Your task to perform on an android device: turn on location history Image 0: 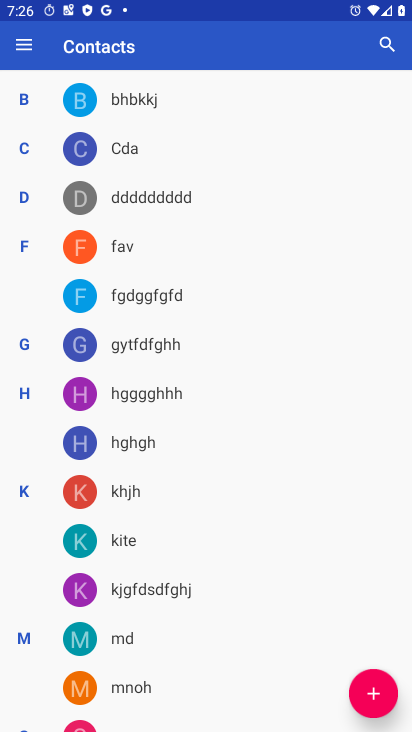
Step 0: press home button
Your task to perform on an android device: turn on location history Image 1: 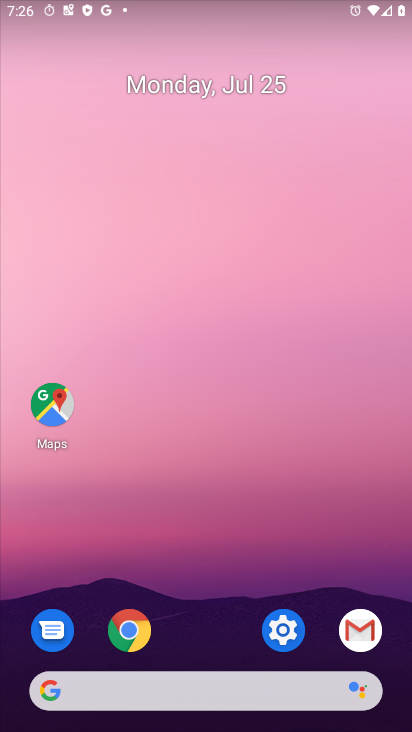
Step 1: drag from (247, 713) to (250, 235)
Your task to perform on an android device: turn on location history Image 2: 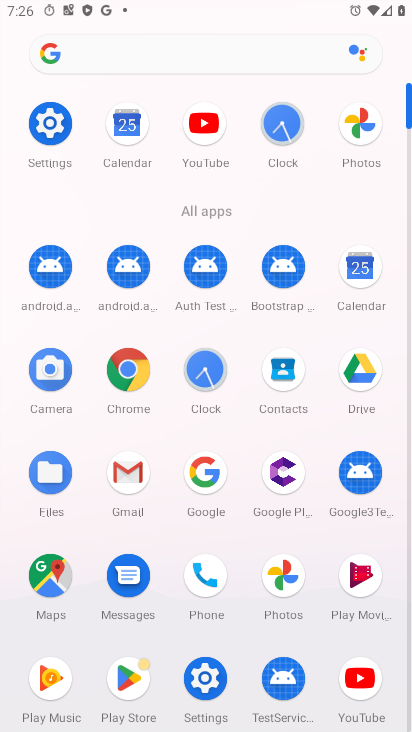
Step 2: click (61, 131)
Your task to perform on an android device: turn on location history Image 3: 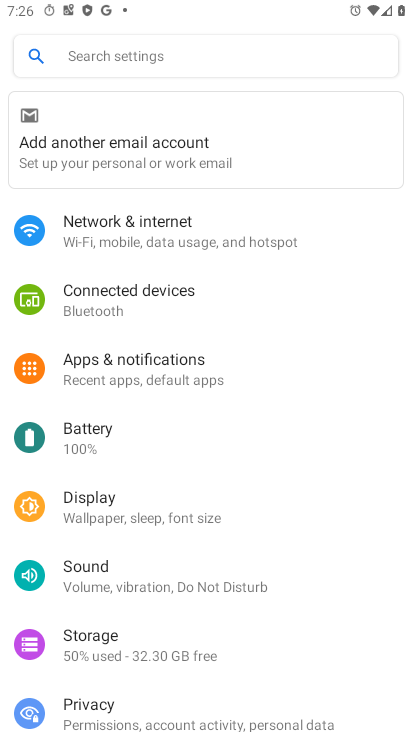
Step 3: drag from (117, 640) to (172, 519)
Your task to perform on an android device: turn on location history Image 4: 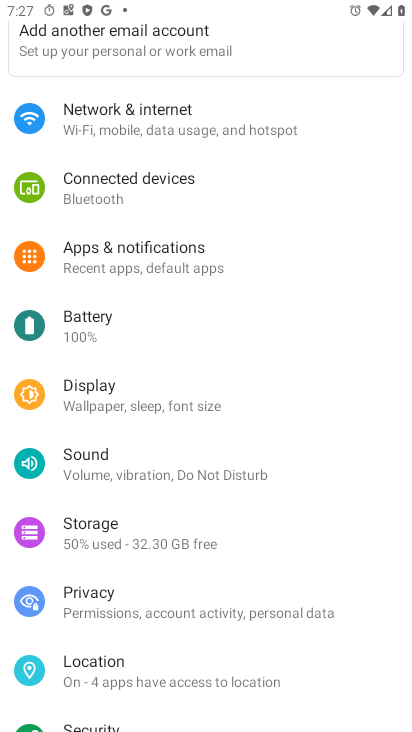
Step 4: click (121, 655)
Your task to perform on an android device: turn on location history Image 5: 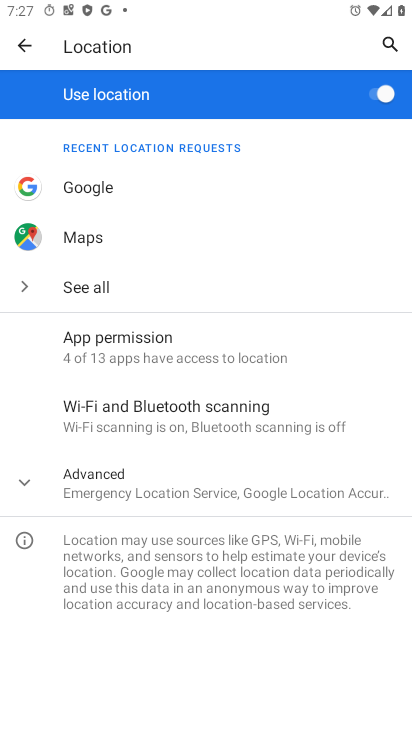
Step 5: click (63, 485)
Your task to perform on an android device: turn on location history Image 6: 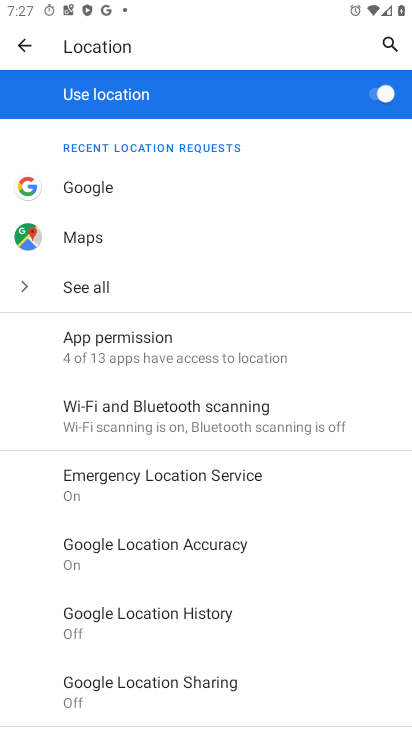
Step 6: click (132, 616)
Your task to perform on an android device: turn on location history Image 7: 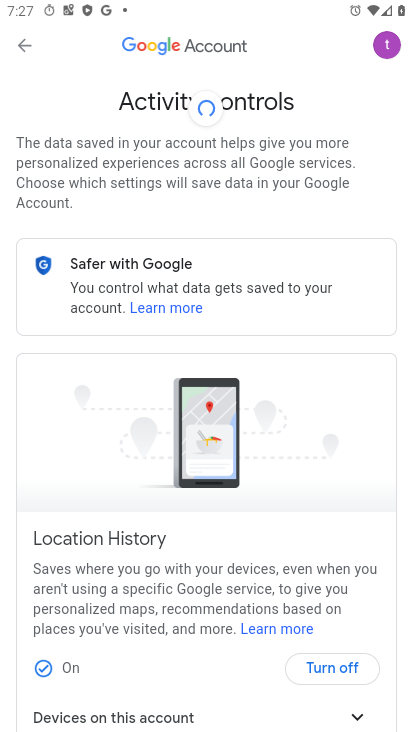
Step 7: click (66, 675)
Your task to perform on an android device: turn on location history Image 8: 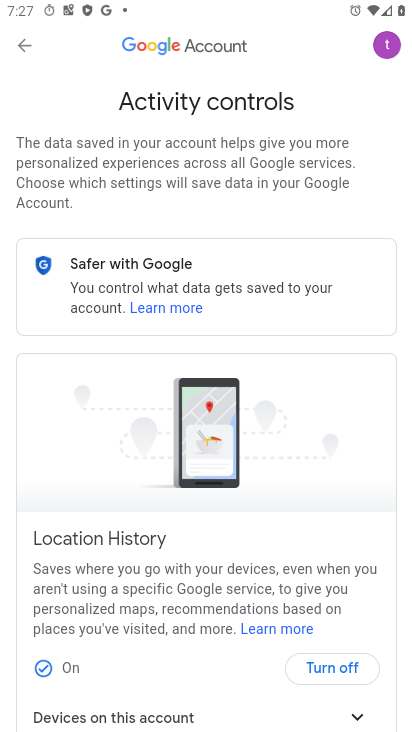
Step 8: task complete